Your task to perform on an android device: Open settings on Google Maps Image 0: 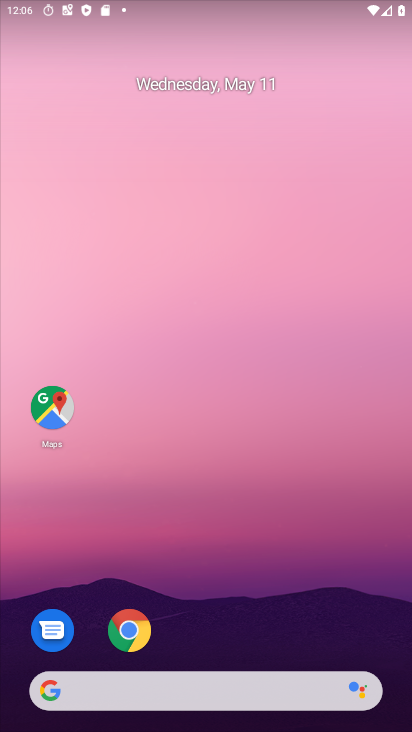
Step 0: drag from (258, 632) to (270, 137)
Your task to perform on an android device: Open settings on Google Maps Image 1: 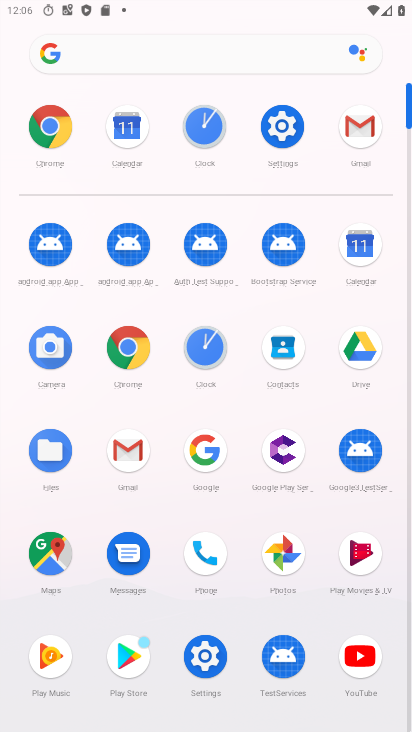
Step 1: click (55, 549)
Your task to perform on an android device: Open settings on Google Maps Image 2: 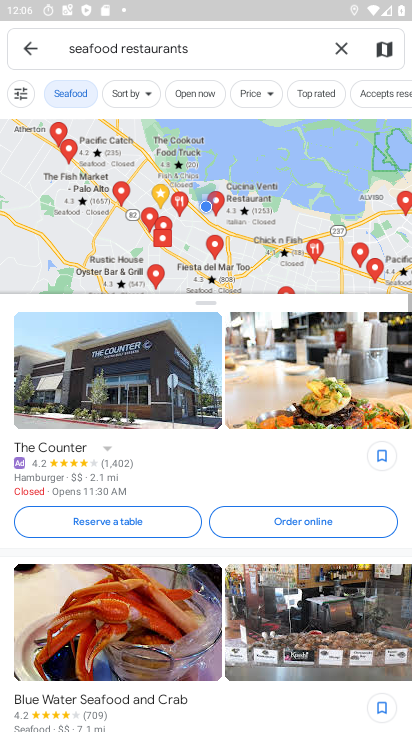
Step 2: task complete